Your task to perform on an android device: Search for acer nitro on newegg, select the first entry, add it to the cart, then select checkout. Image 0: 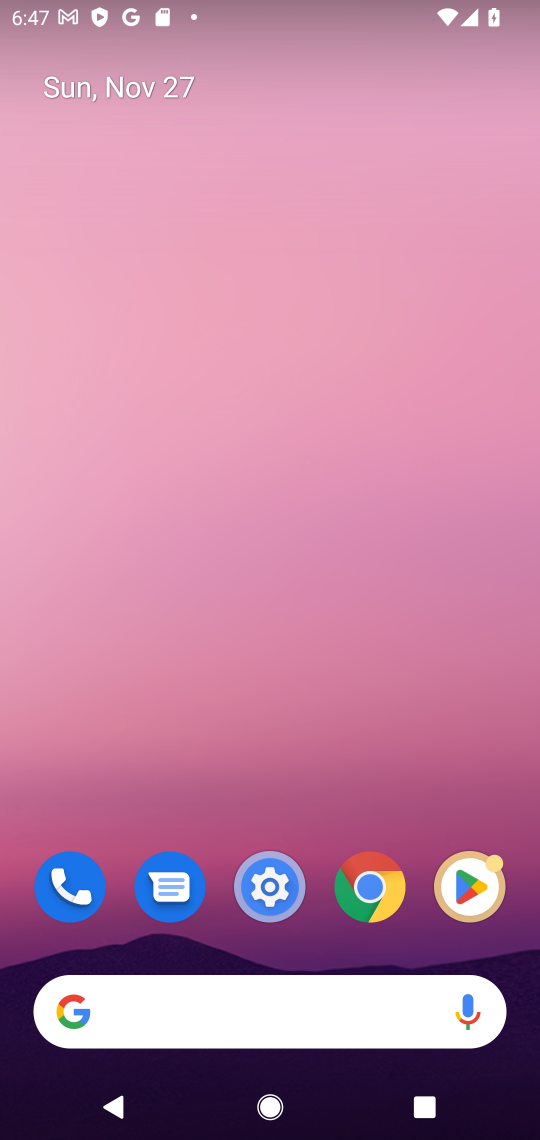
Step 0: click (275, 985)
Your task to perform on an android device: Search for acer nitro on newegg, select the first entry, add it to the cart, then select checkout. Image 1: 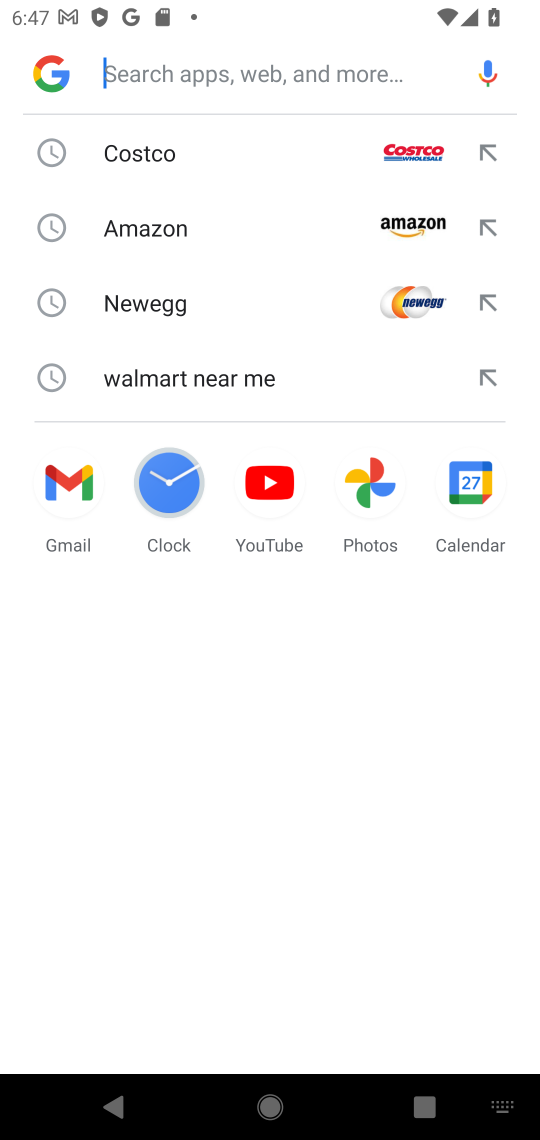
Step 1: click (167, 294)
Your task to perform on an android device: Search for acer nitro on newegg, select the first entry, add it to the cart, then select checkout. Image 2: 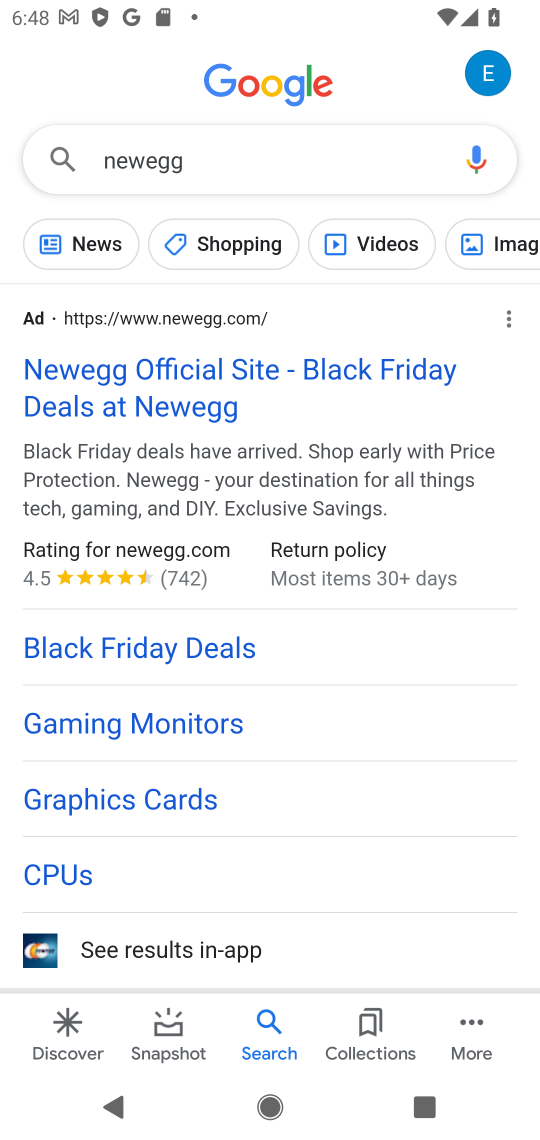
Step 2: click (151, 370)
Your task to perform on an android device: Search for acer nitro on newegg, select the first entry, add it to the cart, then select checkout. Image 3: 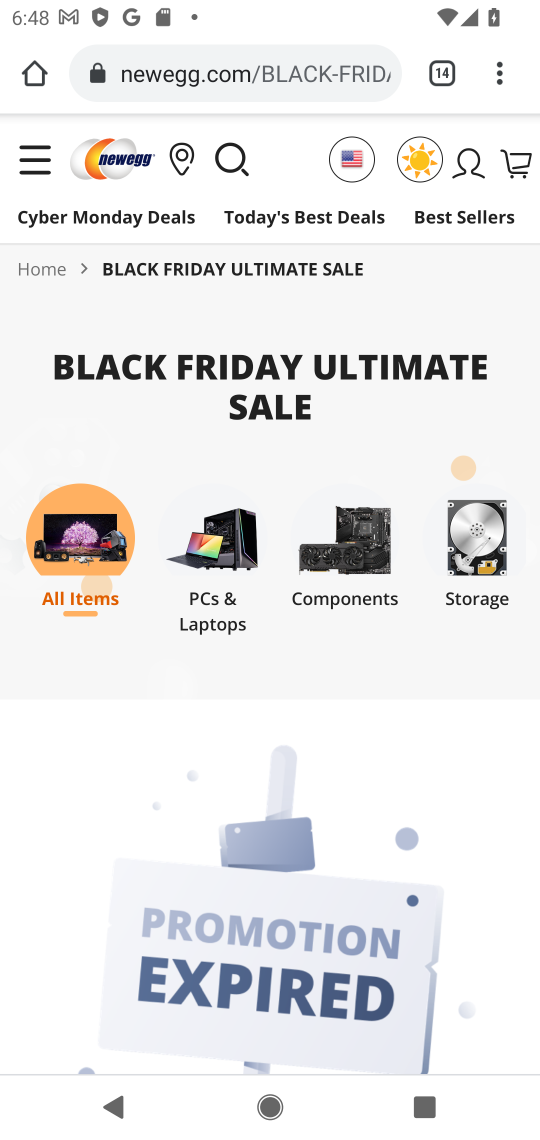
Step 3: click (236, 161)
Your task to perform on an android device: Search for acer nitro on newegg, select the first entry, add it to the cart, then select checkout. Image 4: 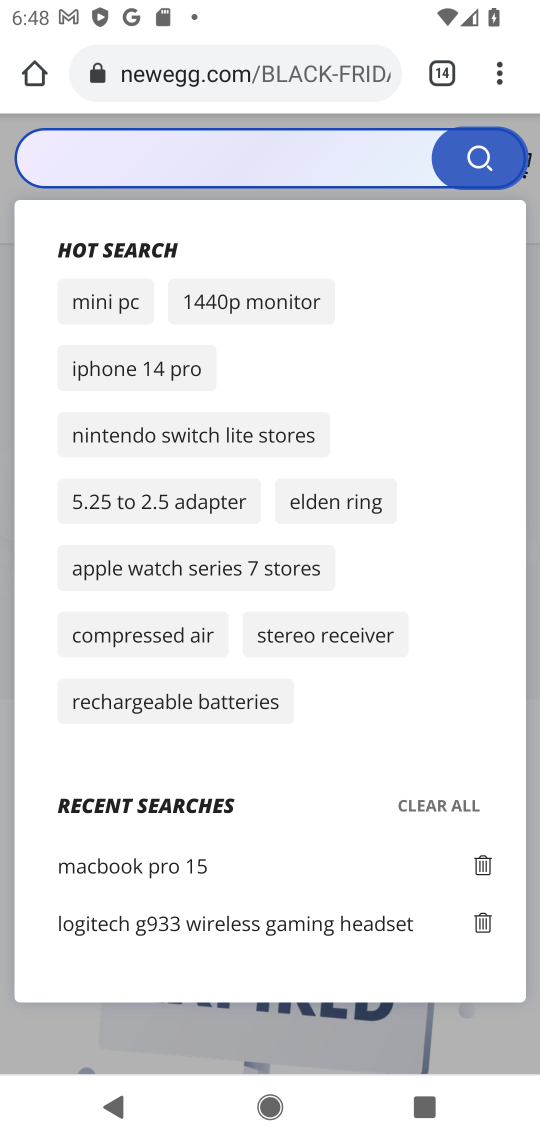
Step 4: type "acer nitro"
Your task to perform on an android device: Search for acer nitro on newegg, select the first entry, add it to the cart, then select checkout. Image 5: 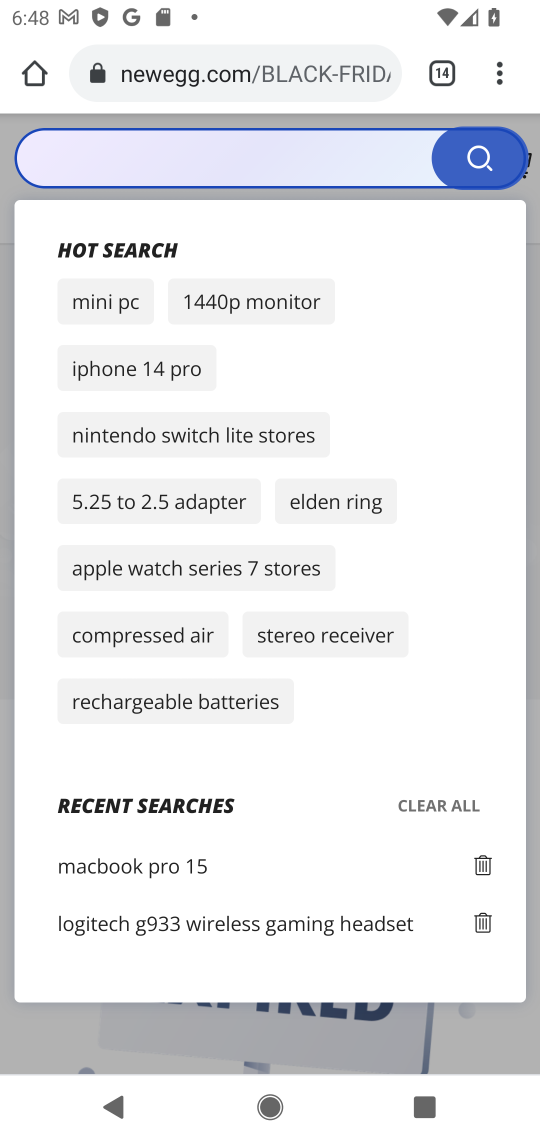
Step 5: click (287, 173)
Your task to perform on an android device: Search for acer nitro on newegg, select the first entry, add it to the cart, then select checkout. Image 6: 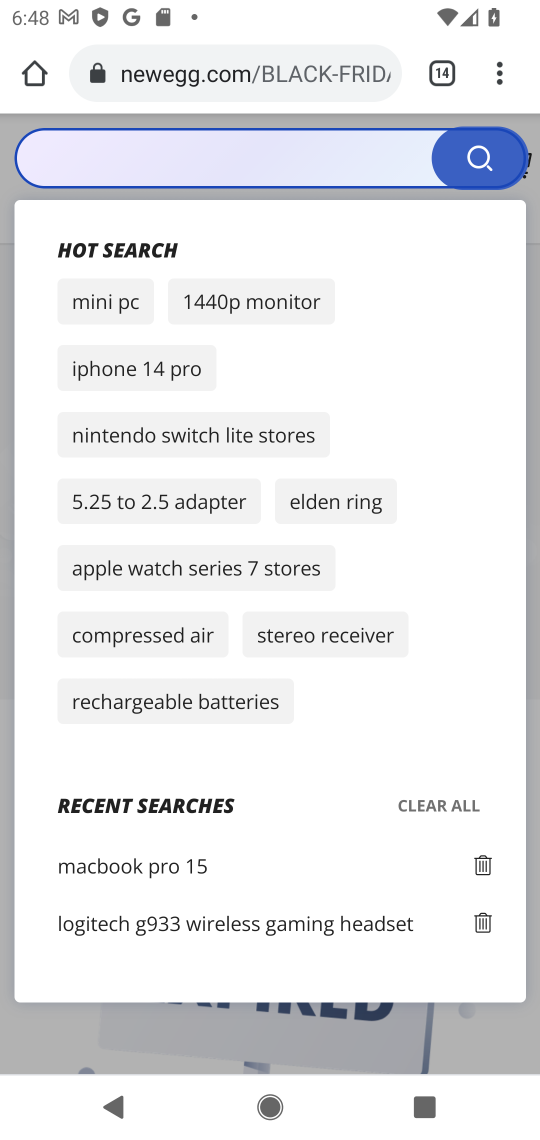
Step 6: click (287, 173)
Your task to perform on an android device: Search for acer nitro on newegg, select the first entry, add it to the cart, then select checkout. Image 7: 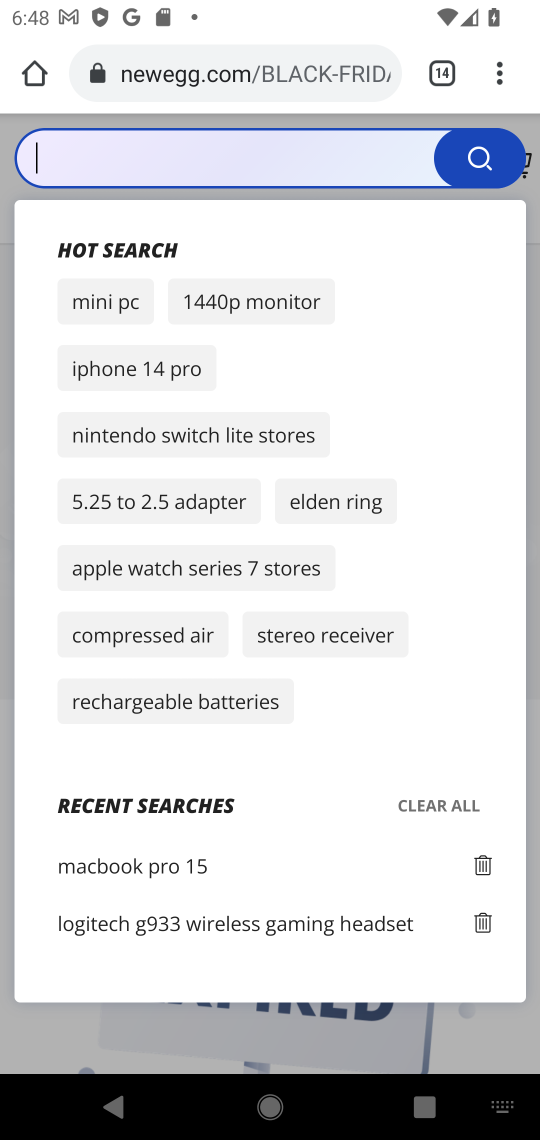
Step 7: type "nitro "
Your task to perform on an android device: Search for acer nitro on newegg, select the first entry, add it to the cart, then select checkout. Image 8: 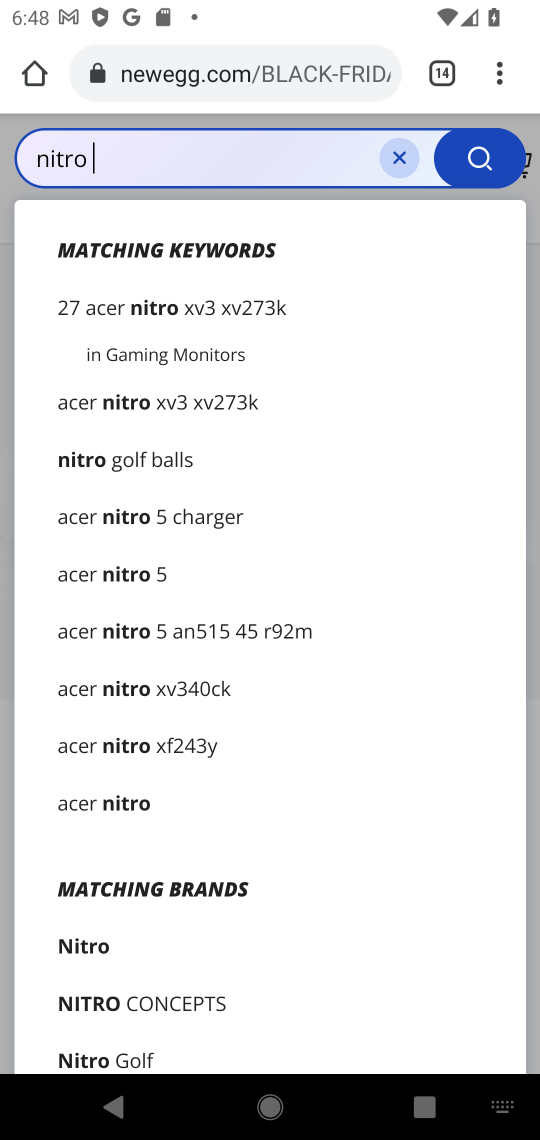
Step 8: click (185, 324)
Your task to perform on an android device: Search for acer nitro on newegg, select the first entry, add it to the cart, then select checkout. Image 9: 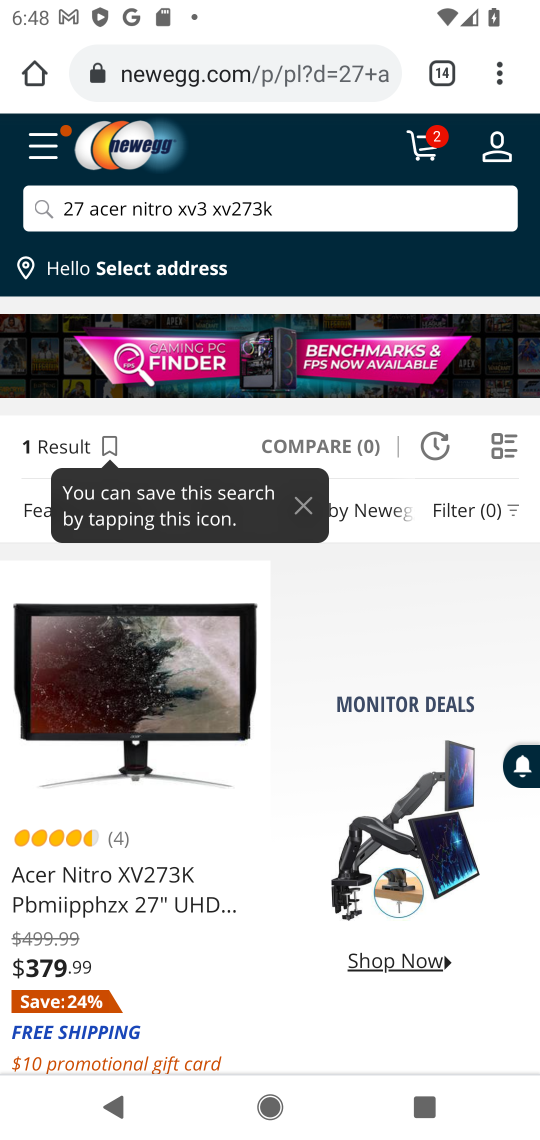
Step 9: click (147, 868)
Your task to perform on an android device: Search for acer nitro on newegg, select the first entry, add it to the cart, then select checkout. Image 10: 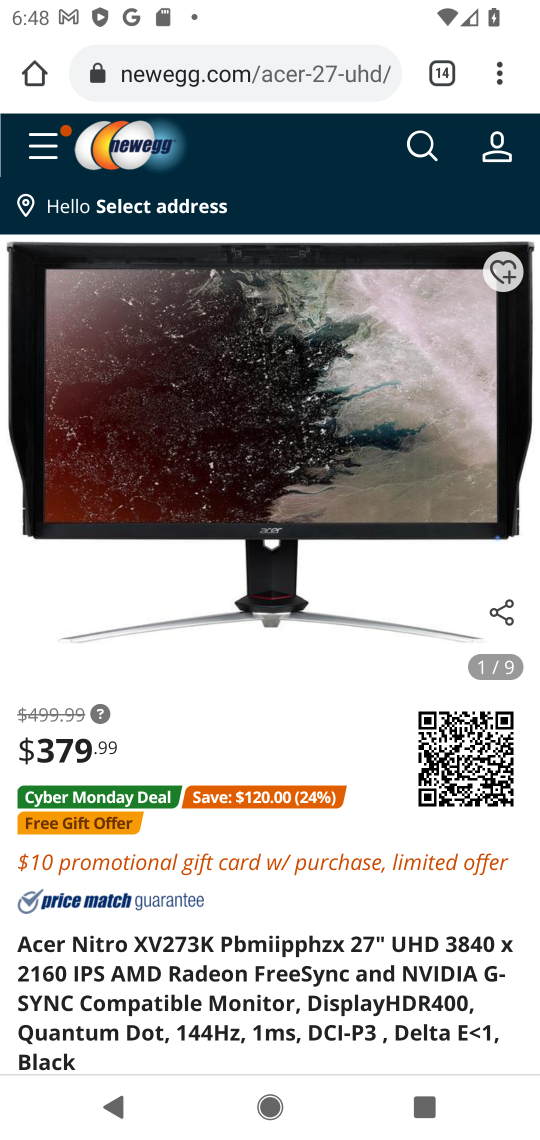
Step 10: click (278, 1034)
Your task to perform on an android device: Search for acer nitro on newegg, select the first entry, add it to the cart, then select checkout. Image 11: 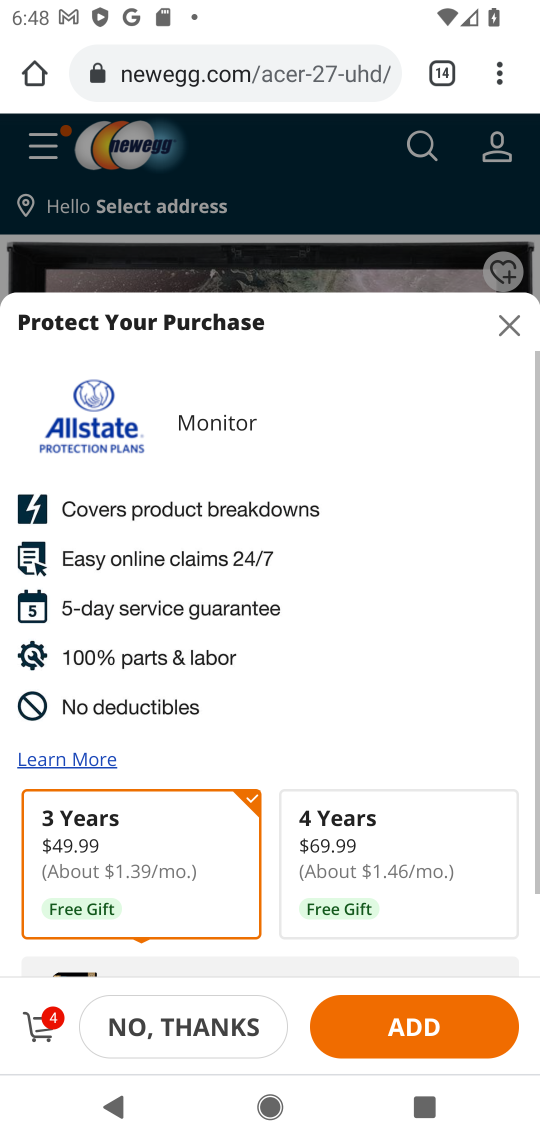
Step 11: click (356, 1010)
Your task to perform on an android device: Search for acer nitro on newegg, select the first entry, add it to the cart, then select checkout. Image 12: 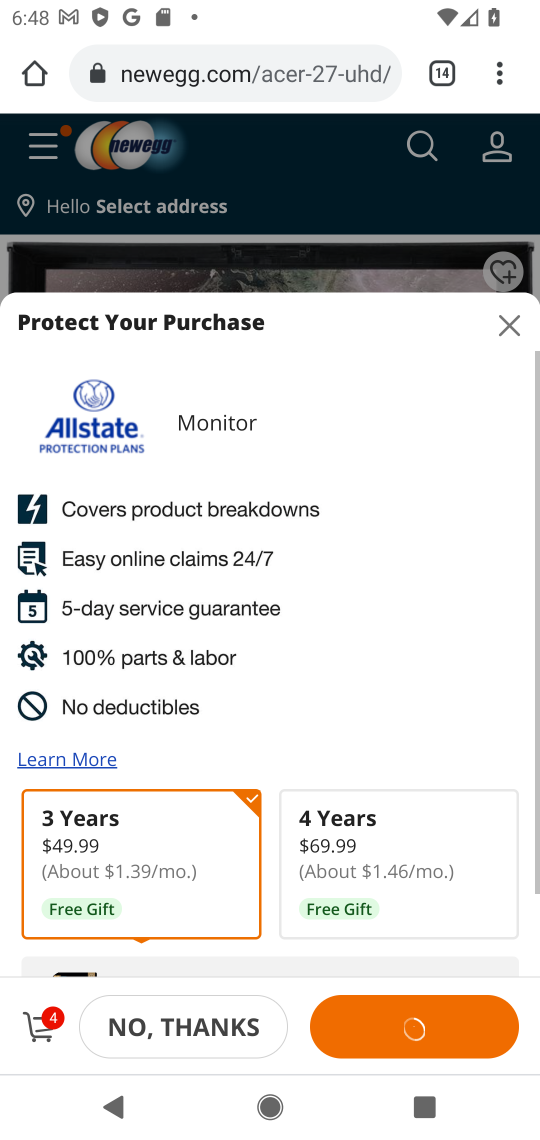
Step 12: task complete